Your task to perform on an android device: turn on data saver in the chrome app Image 0: 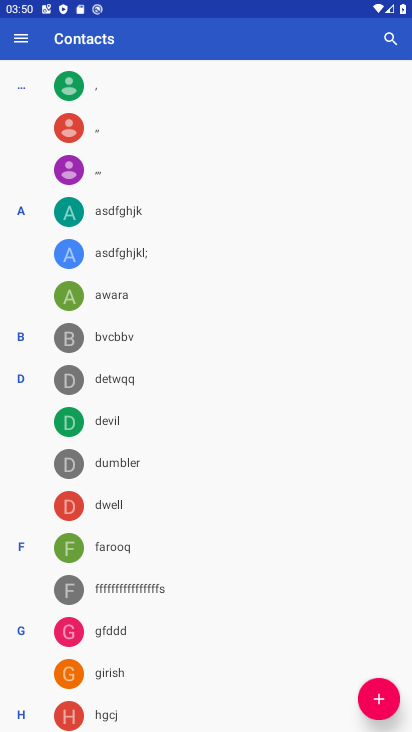
Step 0: press home button
Your task to perform on an android device: turn on data saver in the chrome app Image 1: 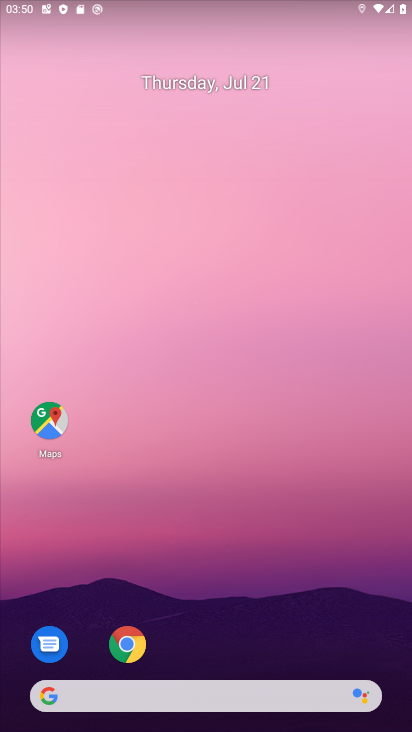
Step 1: click (133, 648)
Your task to perform on an android device: turn on data saver in the chrome app Image 2: 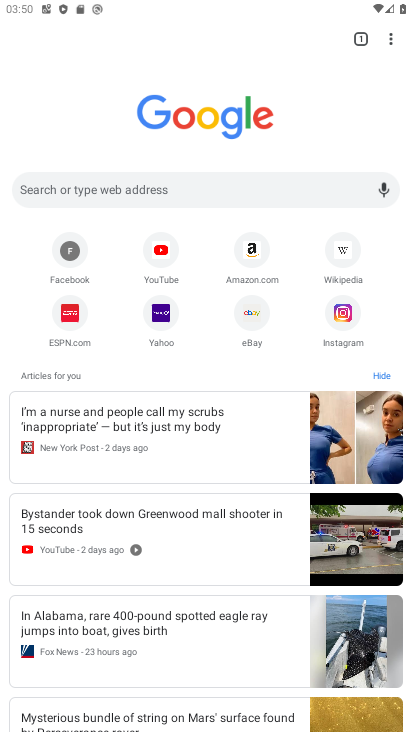
Step 2: click (392, 40)
Your task to perform on an android device: turn on data saver in the chrome app Image 3: 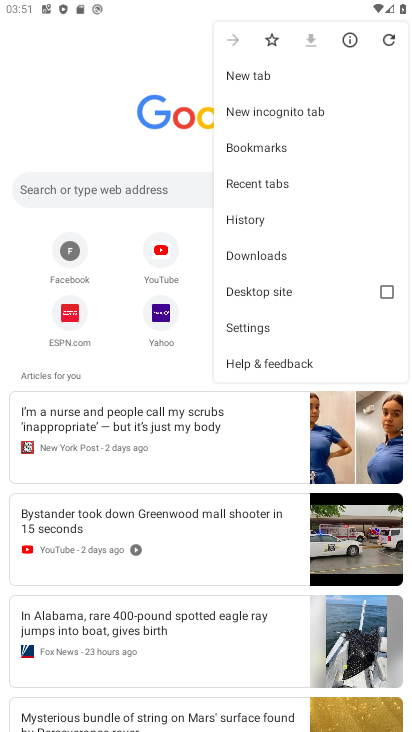
Step 3: click (248, 332)
Your task to perform on an android device: turn on data saver in the chrome app Image 4: 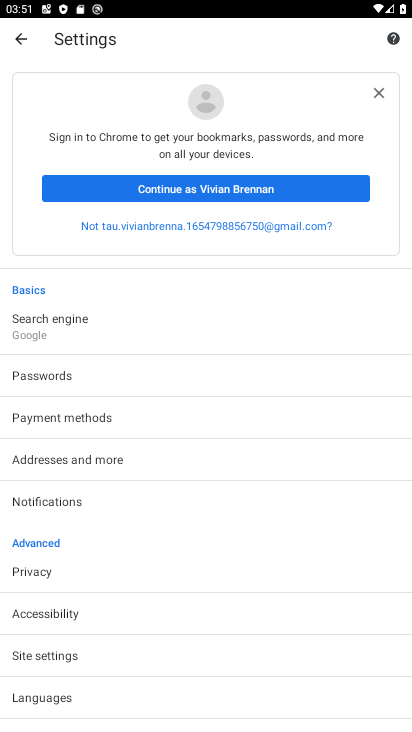
Step 4: drag from (138, 634) to (131, 388)
Your task to perform on an android device: turn on data saver in the chrome app Image 5: 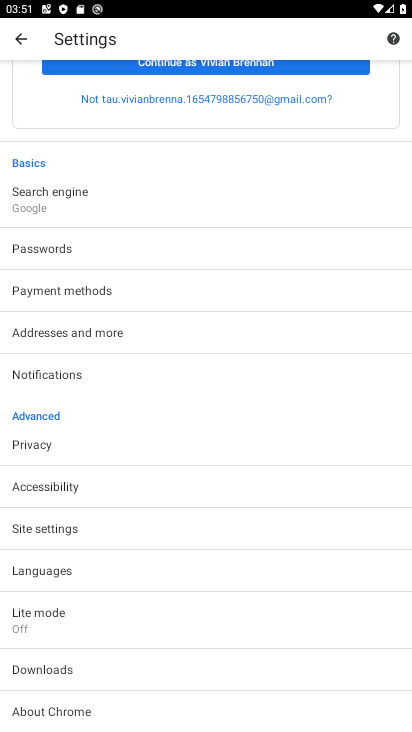
Step 5: click (47, 620)
Your task to perform on an android device: turn on data saver in the chrome app Image 6: 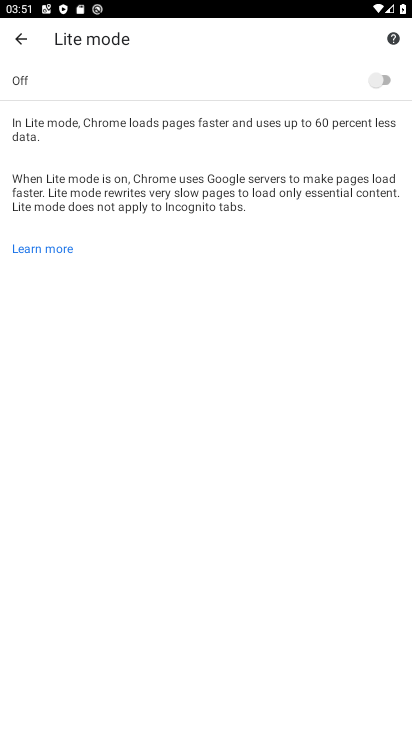
Step 6: click (379, 82)
Your task to perform on an android device: turn on data saver in the chrome app Image 7: 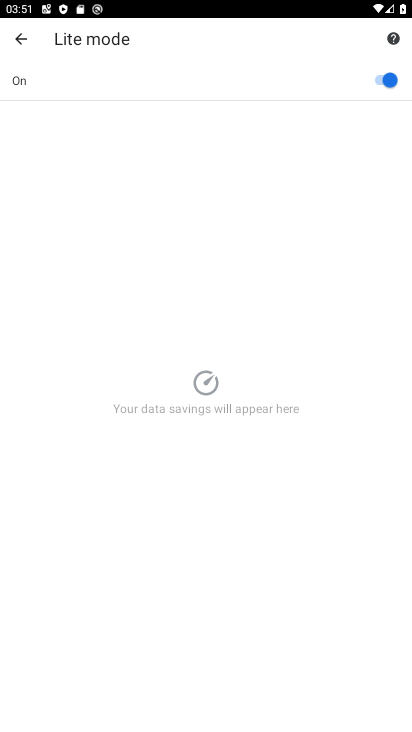
Step 7: task complete